Your task to perform on an android device: Check the news Image 0: 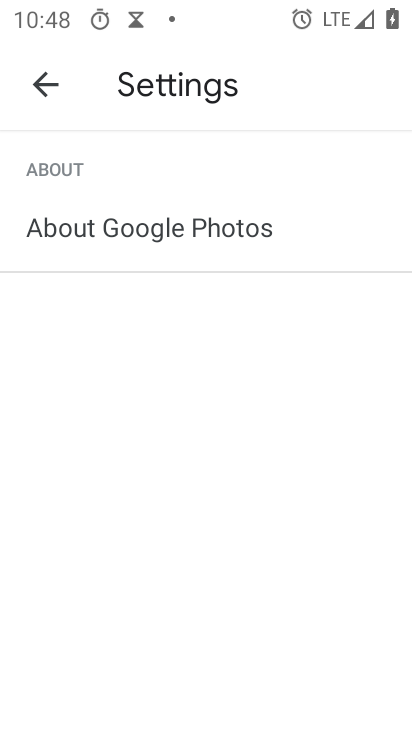
Step 0: press home button
Your task to perform on an android device: Check the news Image 1: 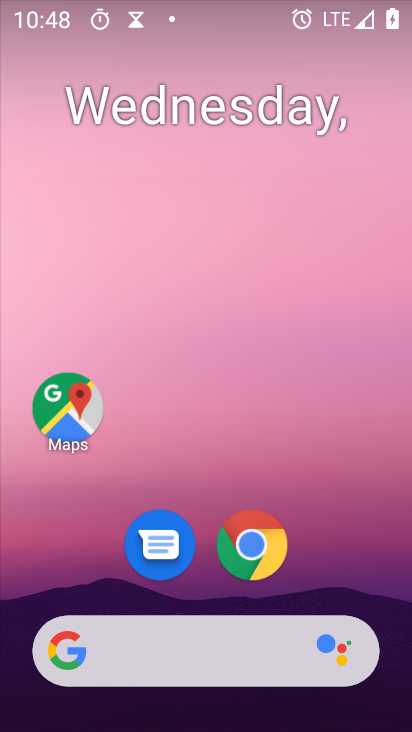
Step 1: click (79, 654)
Your task to perform on an android device: Check the news Image 2: 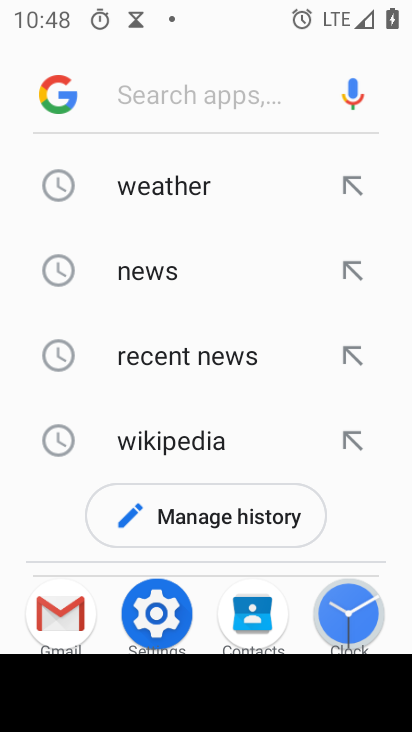
Step 2: click (144, 269)
Your task to perform on an android device: Check the news Image 3: 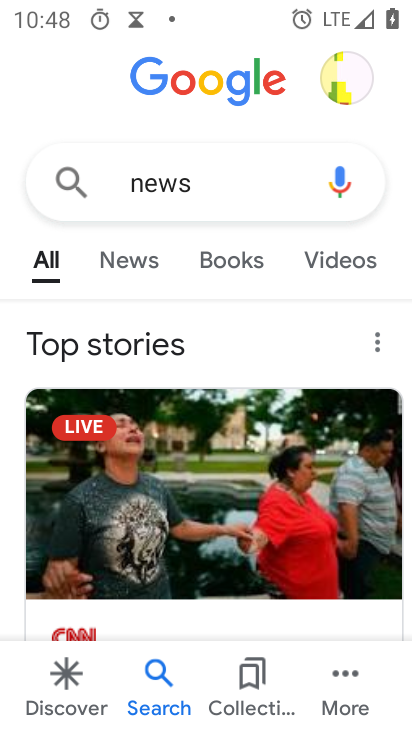
Step 3: click (124, 265)
Your task to perform on an android device: Check the news Image 4: 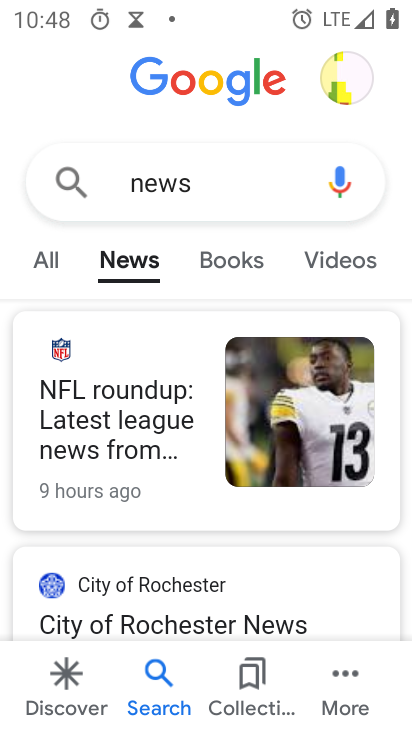
Step 4: task complete